Your task to perform on an android device: change notification settings in the gmail app Image 0: 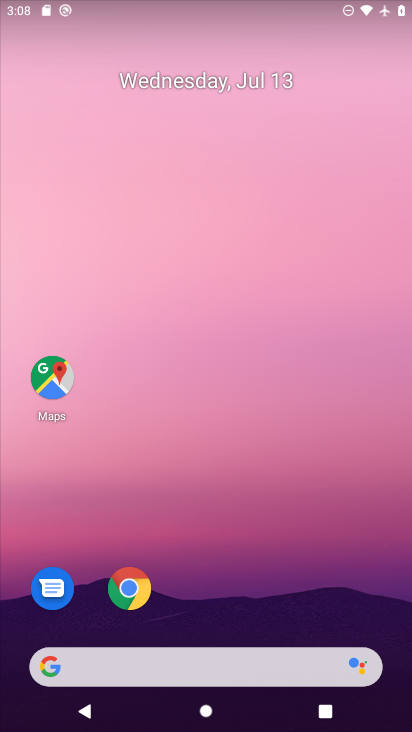
Step 0: drag from (226, 612) to (217, 137)
Your task to perform on an android device: change notification settings in the gmail app Image 1: 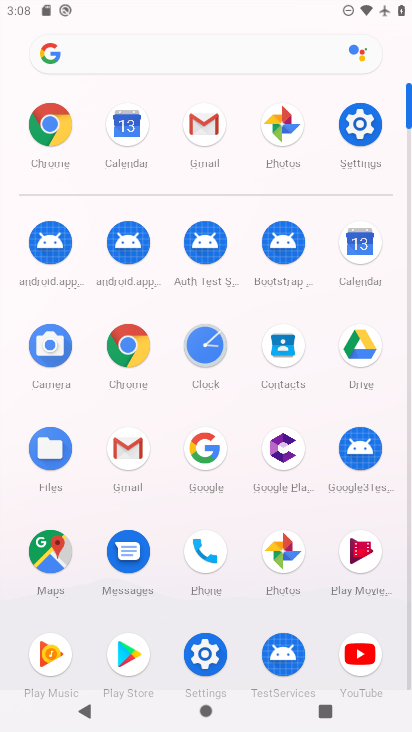
Step 1: click (118, 453)
Your task to perform on an android device: change notification settings in the gmail app Image 2: 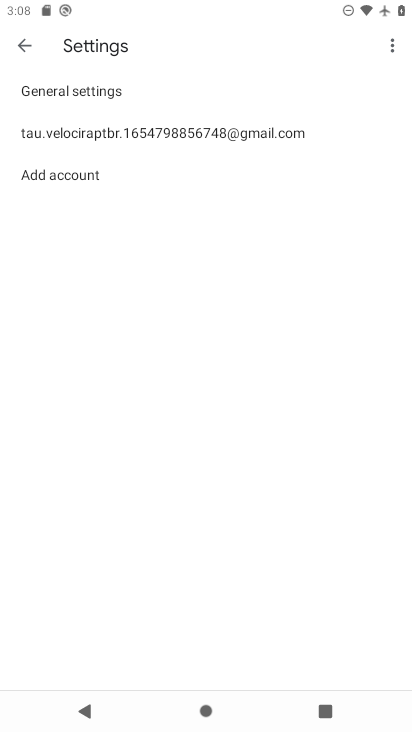
Step 2: click (81, 99)
Your task to perform on an android device: change notification settings in the gmail app Image 3: 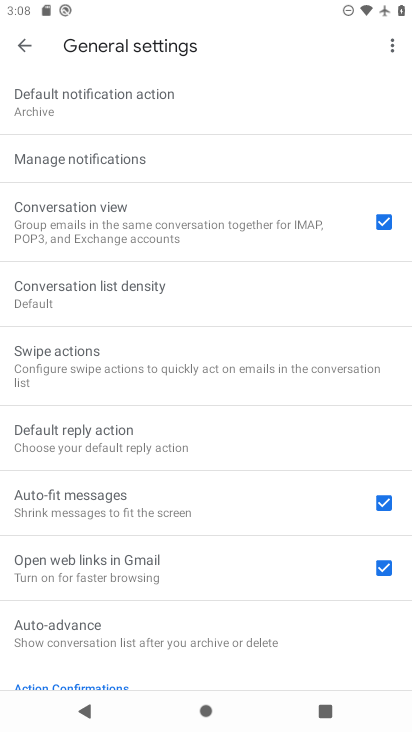
Step 3: click (110, 174)
Your task to perform on an android device: change notification settings in the gmail app Image 4: 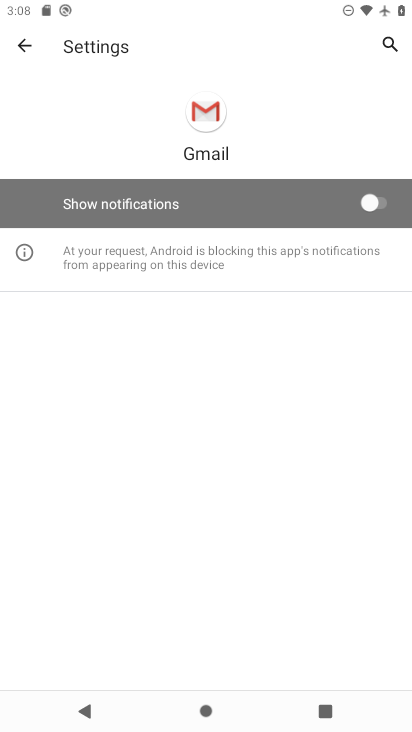
Step 4: click (365, 203)
Your task to perform on an android device: change notification settings in the gmail app Image 5: 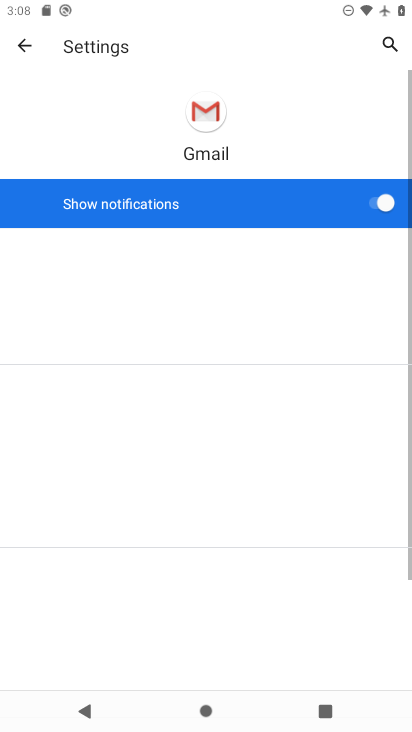
Step 5: task complete